Your task to perform on an android device: open chrome privacy settings Image 0: 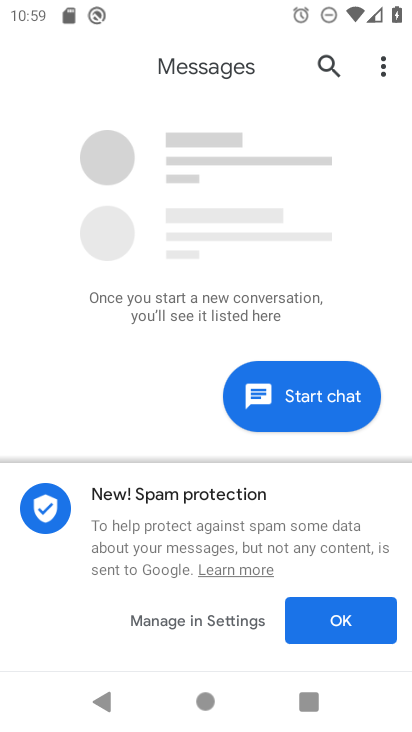
Step 0: press home button
Your task to perform on an android device: open chrome privacy settings Image 1: 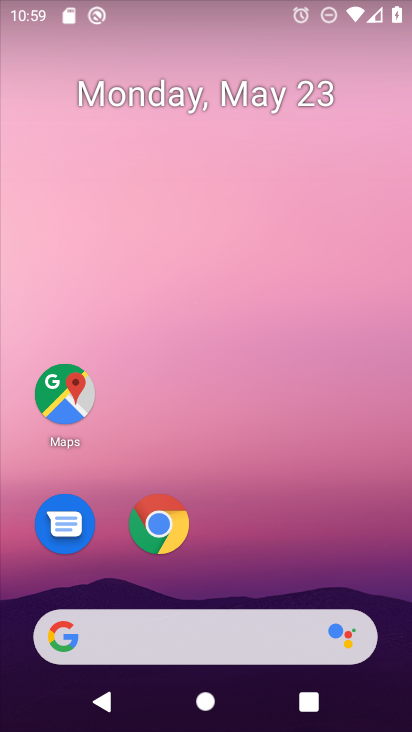
Step 1: click (141, 519)
Your task to perform on an android device: open chrome privacy settings Image 2: 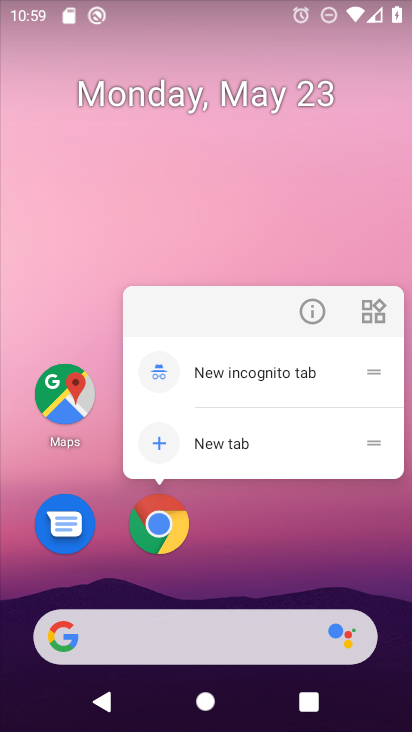
Step 2: click (158, 535)
Your task to perform on an android device: open chrome privacy settings Image 3: 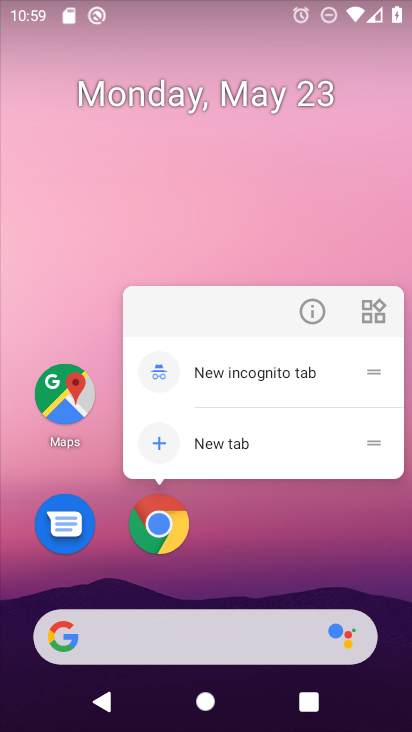
Step 3: click (149, 522)
Your task to perform on an android device: open chrome privacy settings Image 4: 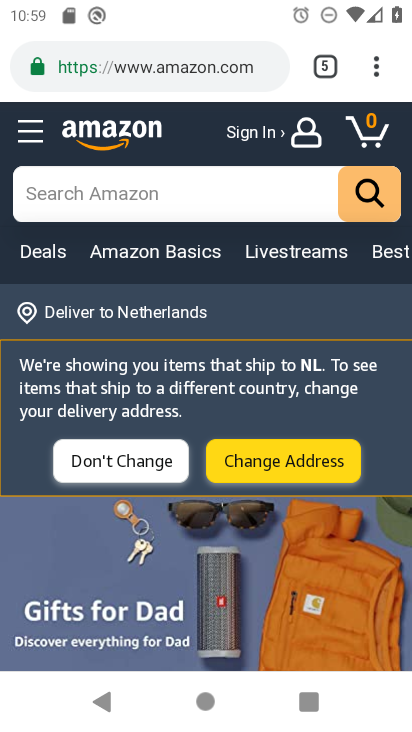
Step 4: drag from (373, 74) to (133, 500)
Your task to perform on an android device: open chrome privacy settings Image 5: 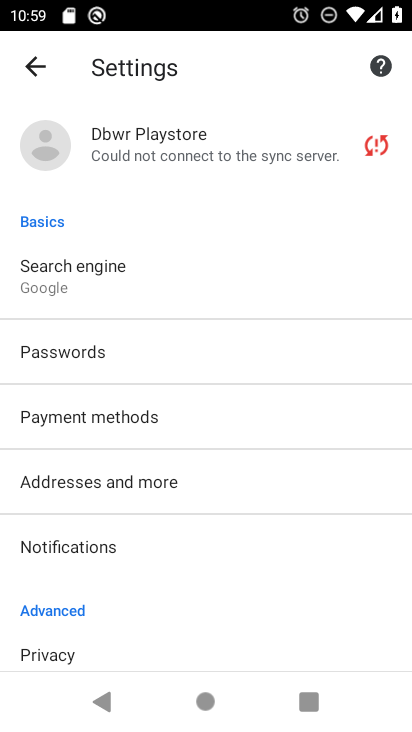
Step 5: click (124, 651)
Your task to perform on an android device: open chrome privacy settings Image 6: 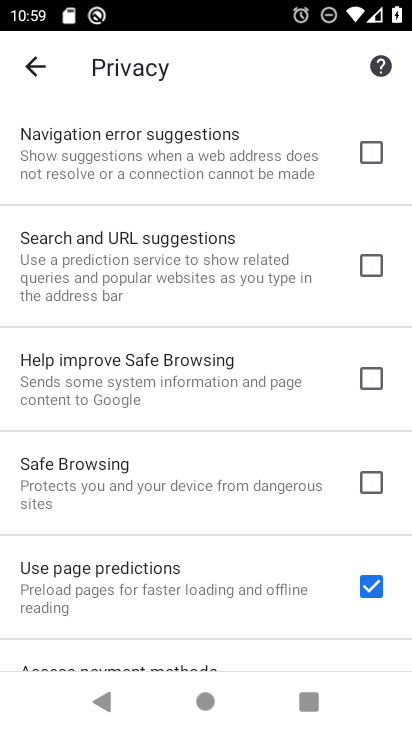
Step 6: task complete